Your task to perform on an android device: change the clock style Image 0: 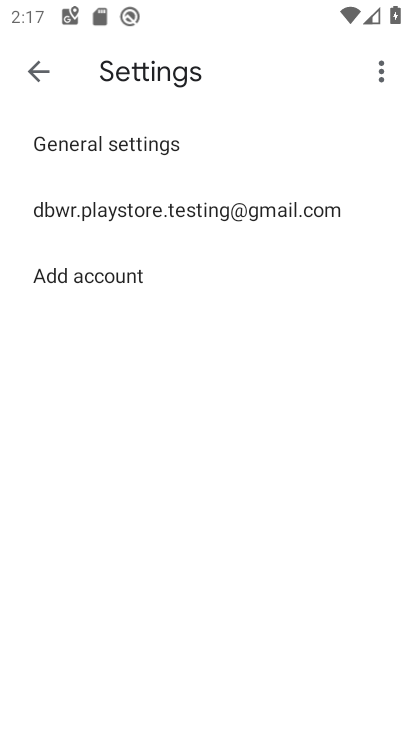
Step 0: press home button
Your task to perform on an android device: change the clock style Image 1: 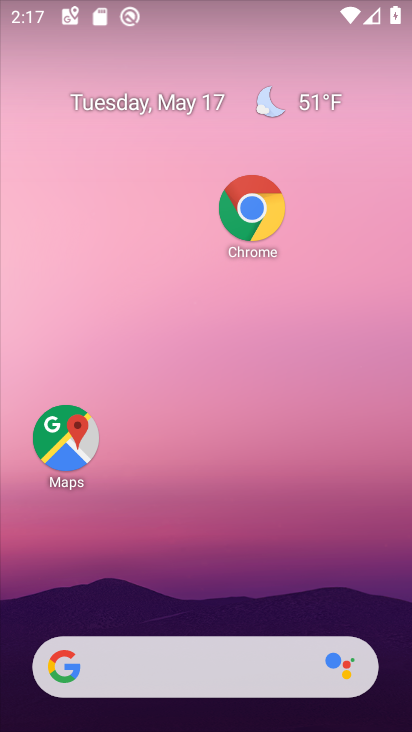
Step 1: drag from (180, 627) to (142, 2)
Your task to perform on an android device: change the clock style Image 2: 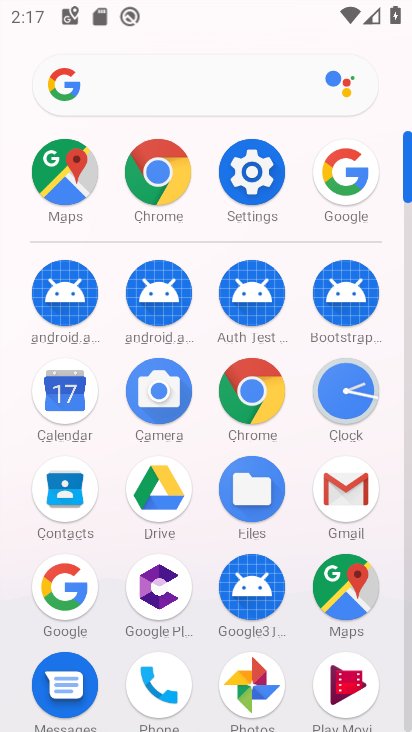
Step 2: click (325, 383)
Your task to perform on an android device: change the clock style Image 3: 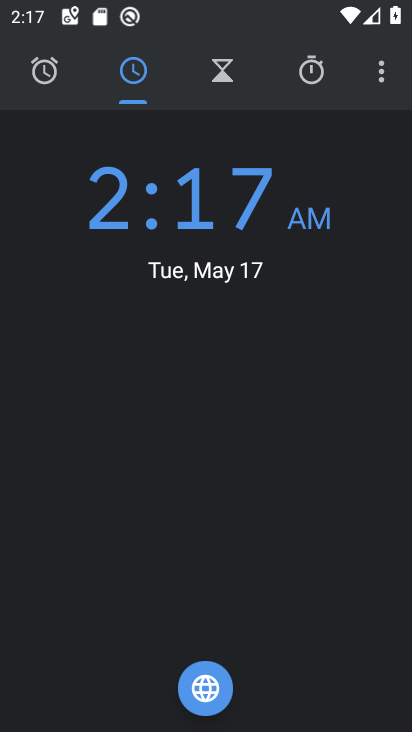
Step 3: click (371, 73)
Your task to perform on an android device: change the clock style Image 4: 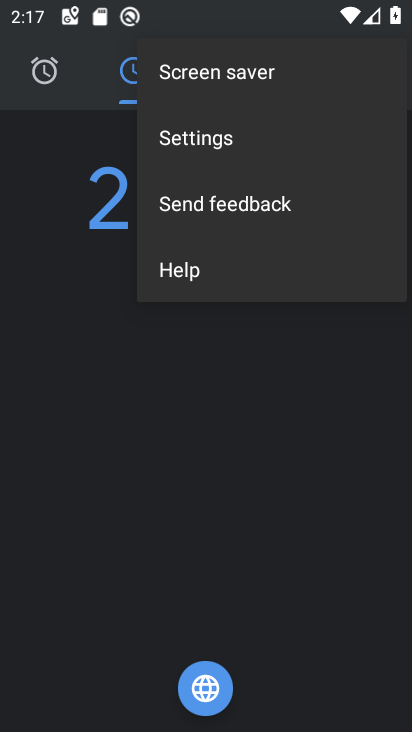
Step 4: click (170, 149)
Your task to perform on an android device: change the clock style Image 5: 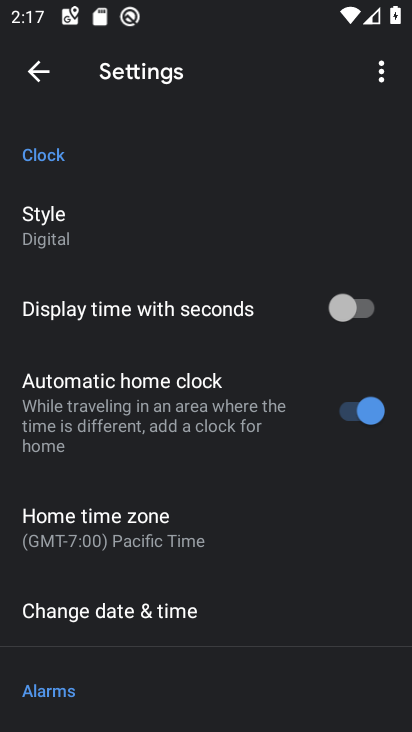
Step 5: click (78, 232)
Your task to perform on an android device: change the clock style Image 6: 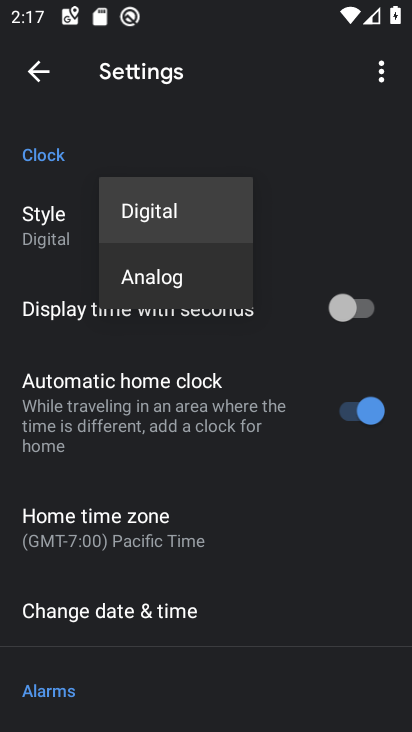
Step 6: click (164, 270)
Your task to perform on an android device: change the clock style Image 7: 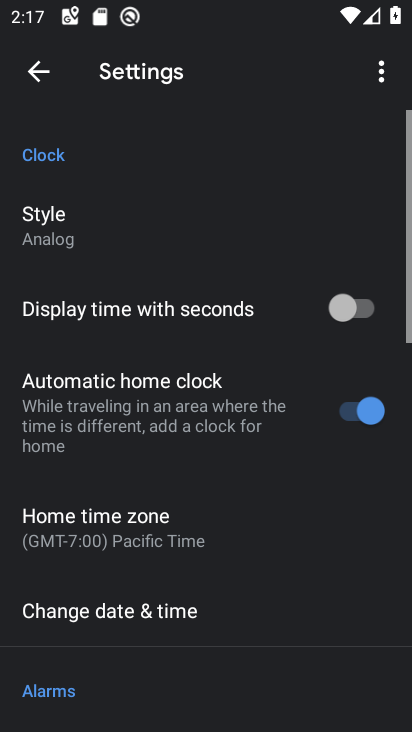
Step 7: task complete